Your task to perform on an android device: Go to wifi settings Image 0: 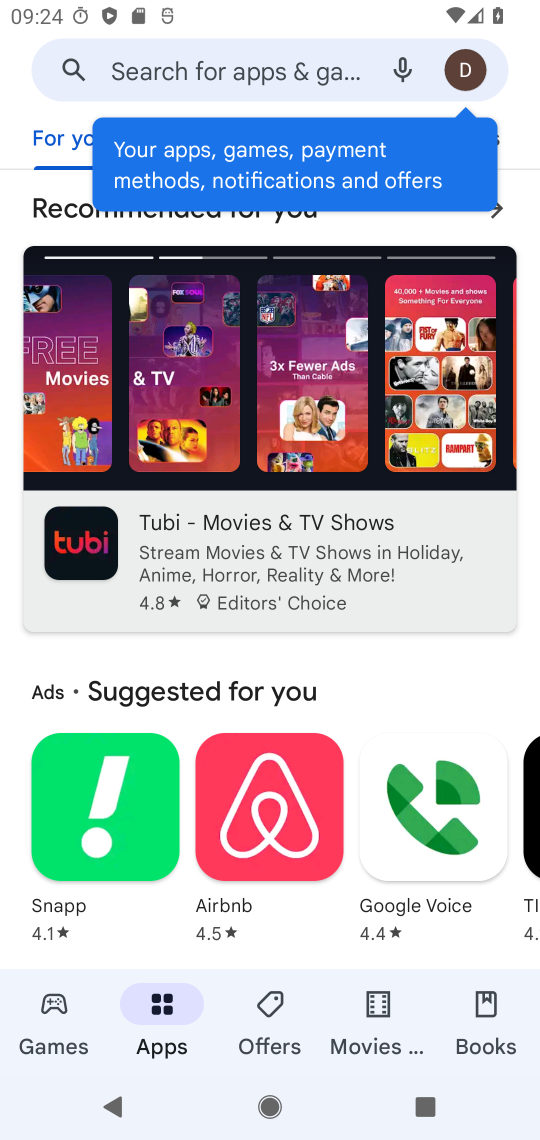
Step 0: press home button
Your task to perform on an android device: Go to wifi settings Image 1: 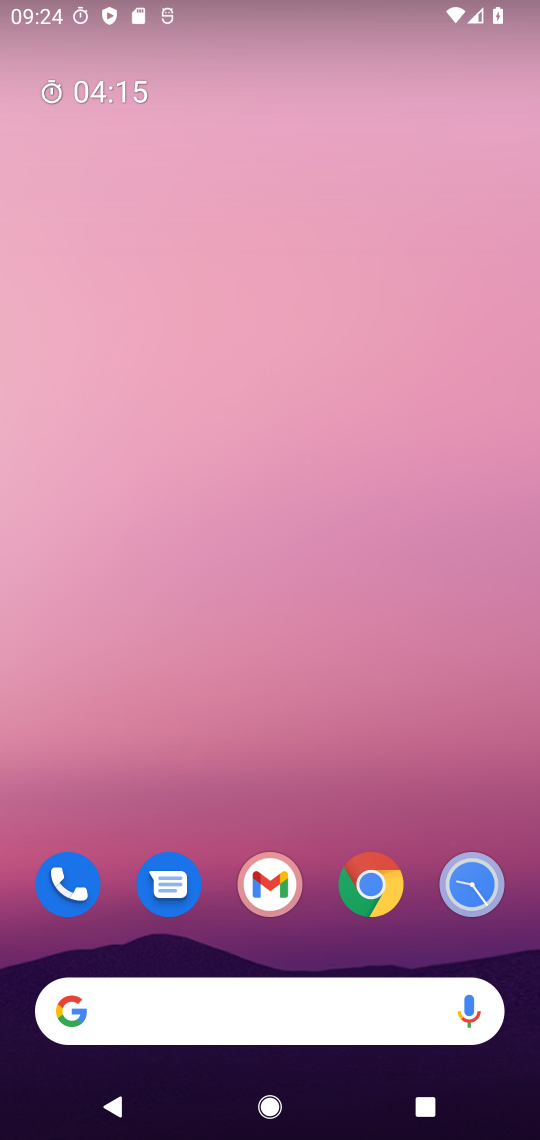
Step 1: drag from (250, 719) to (243, 235)
Your task to perform on an android device: Go to wifi settings Image 2: 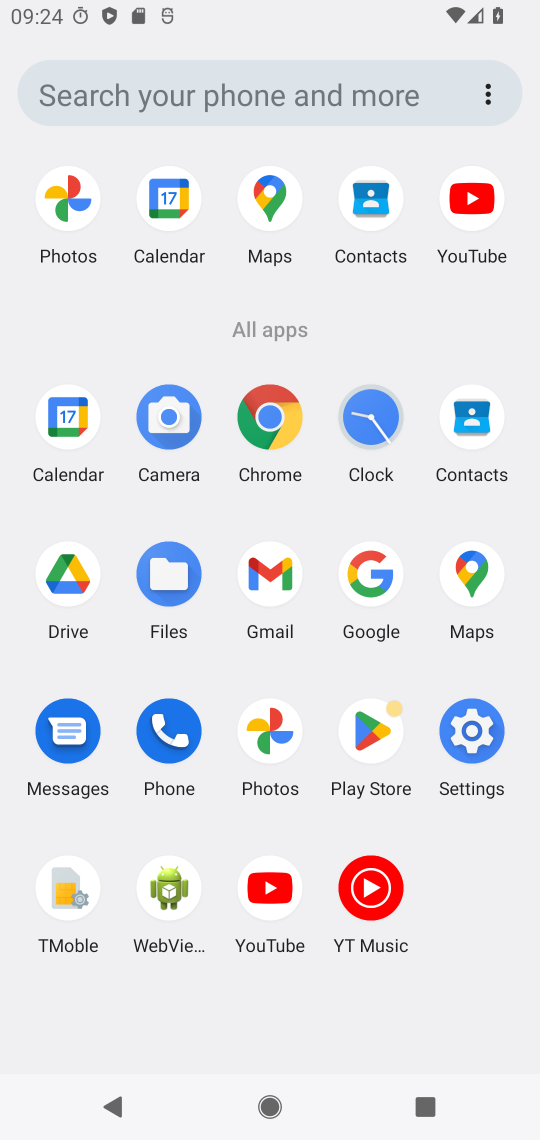
Step 2: click (479, 746)
Your task to perform on an android device: Go to wifi settings Image 3: 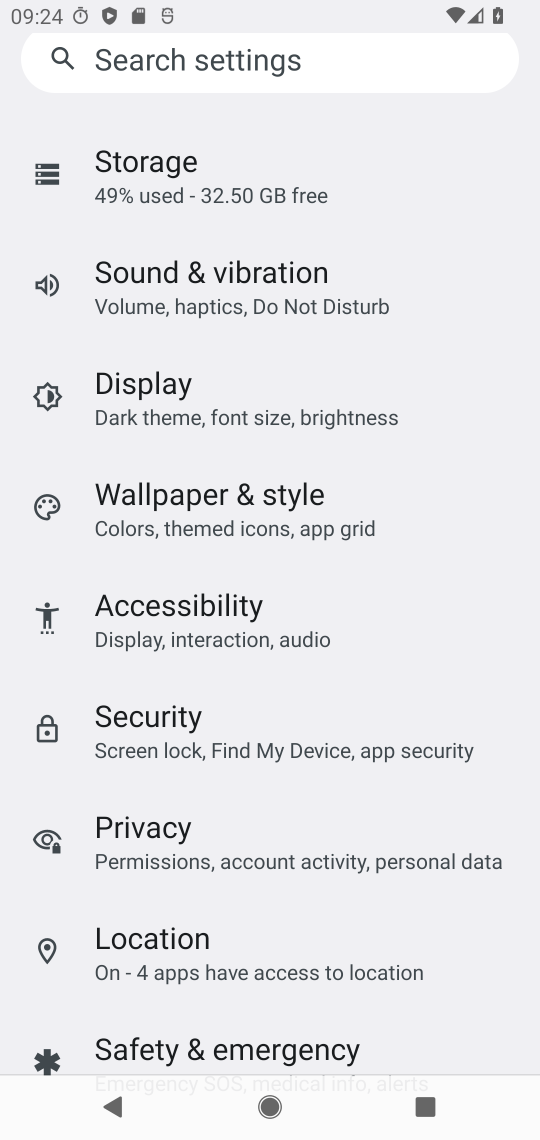
Step 3: drag from (232, 232) to (338, 697)
Your task to perform on an android device: Go to wifi settings Image 4: 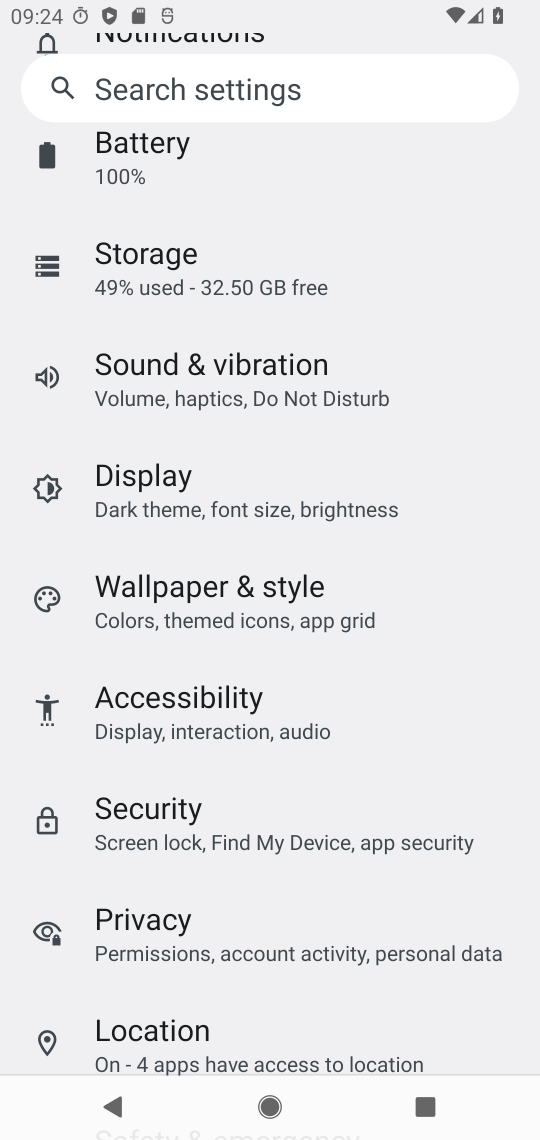
Step 4: drag from (255, 275) to (310, 811)
Your task to perform on an android device: Go to wifi settings Image 5: 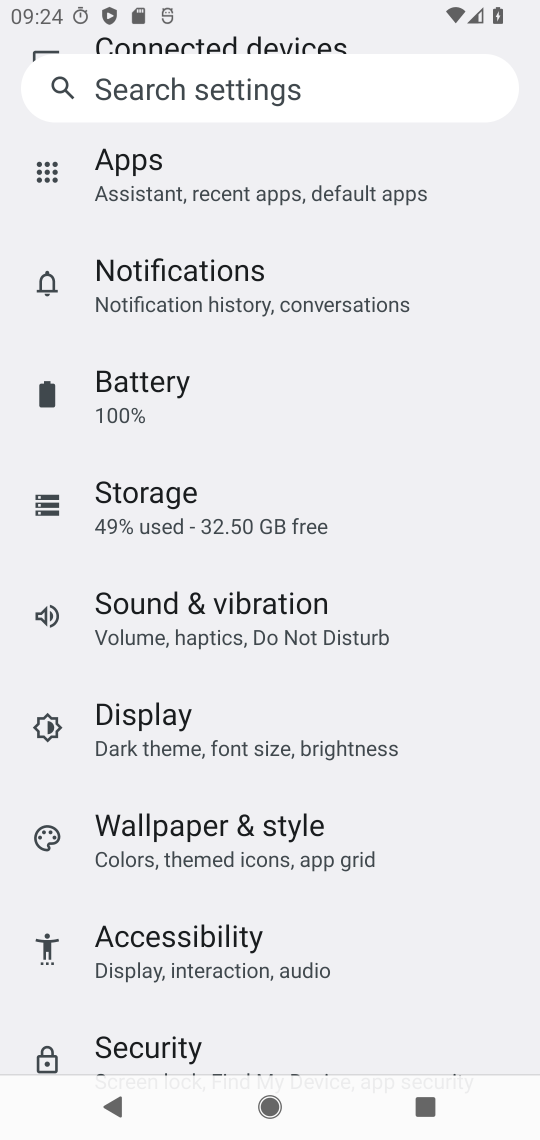
Step 5: drag from (239, 283) to (306, 742)
Your task to perform on an android device: Go to wifi settings Image 6: 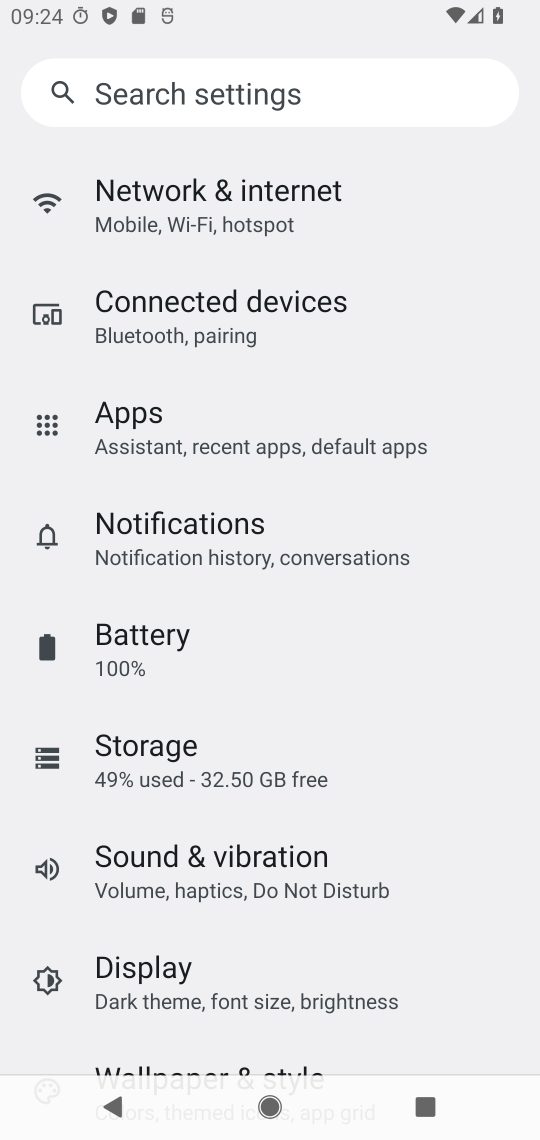
Step 6: click (158, 206)
Your task to perform on an android device: Go to wifi settings Image 7: 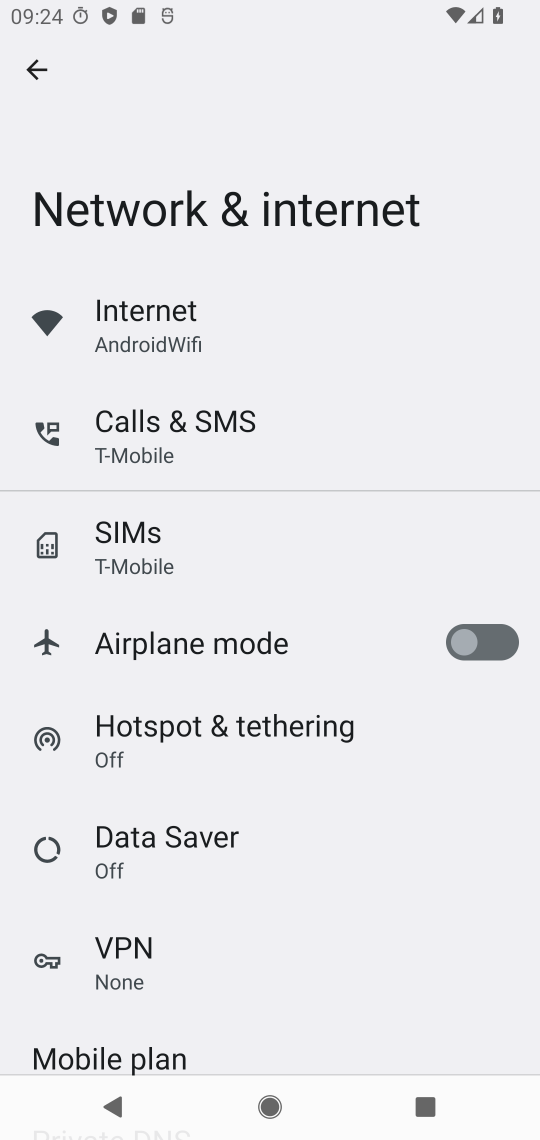
Step 7: click (217, 320)
Your task to perform on an android device: Go to wifi settings Image 8: 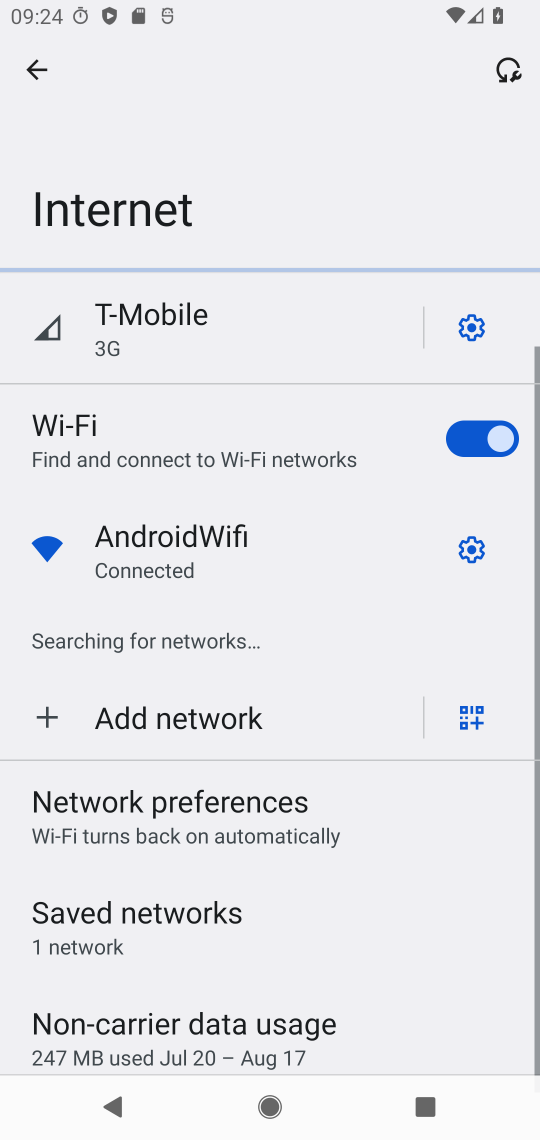
Step 8: task complete